Your task to perform on an android device: Open battery settings Image 0: 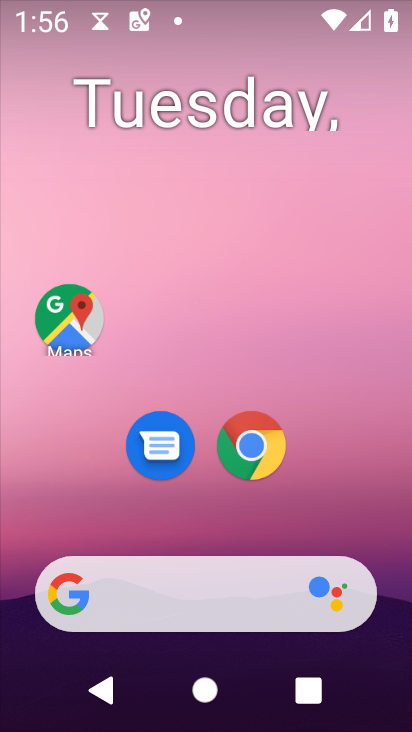
Step 0: drag from (251, 606) to (265, 51)
Your task to perform on an android device: Open battery settings Image 1: 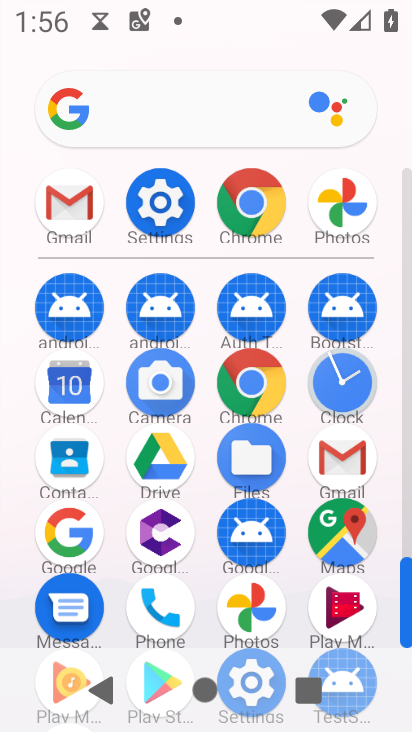
Step 1: drag from (293, 639) to (307, 369)
Your task to perform on an android device: Open battery settings Image 2: 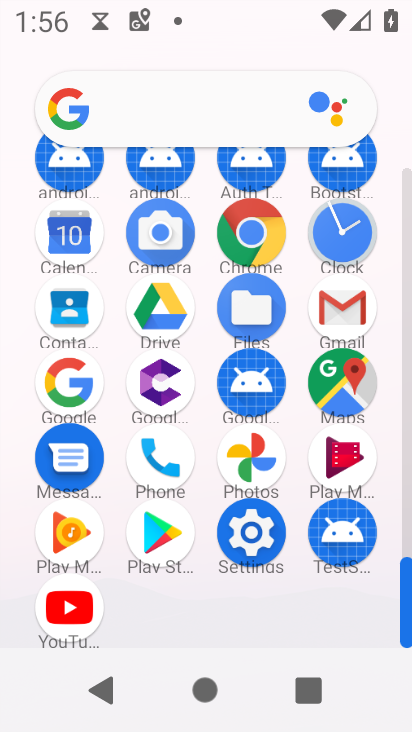
Step 2: click (245, 543)
Your task to perform on an android device: Open battery settings Image 3: 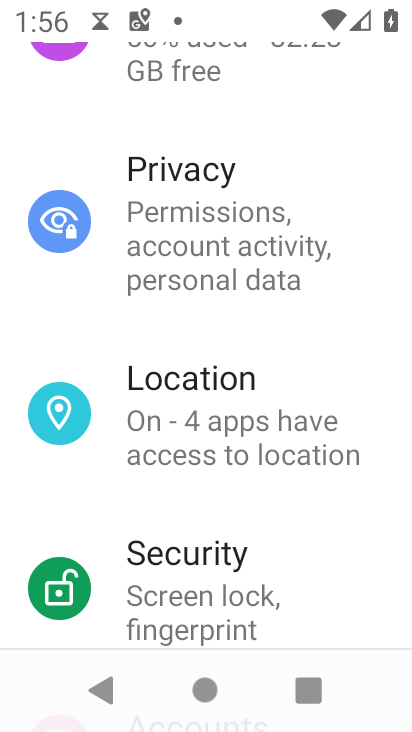
Step 3: drag from (215, 226) to (239, 682)
Your task to perform on an android device: Open battery settings Image 4: 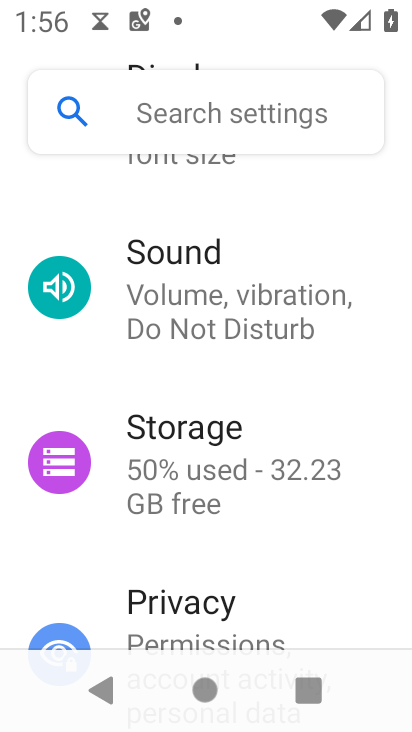
Step 4: drag from (221, 239) to (220, 604)
Your task to perform on an android device: Open battery settings Image 5: 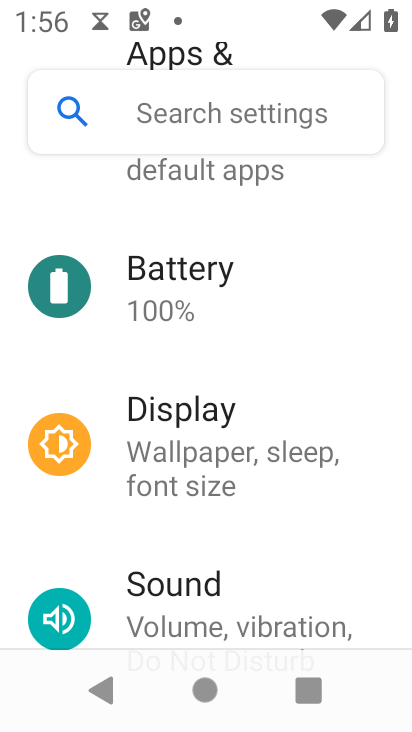
Step 5: click (290, 307)
Your task to perform on an android device: Open battery settings Image 6: 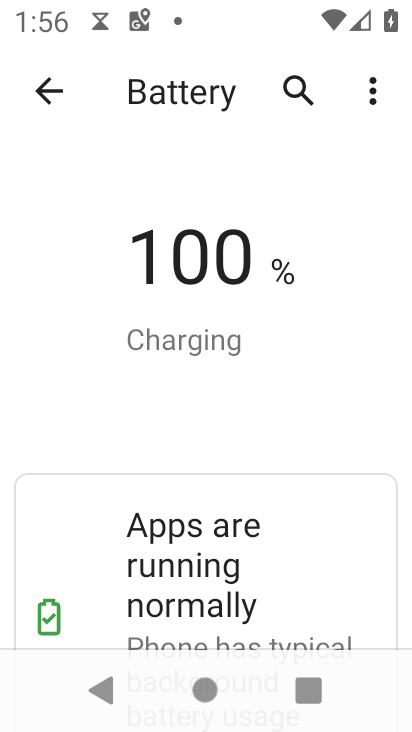
Step 6: task complete